Your task to perform on an android device: Open the web browser Image 0: 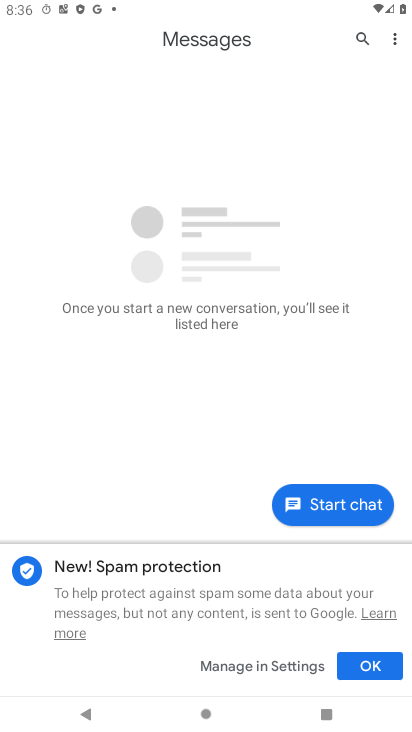
Step 0: press back button
Your task to perform on an android device: Open the web browser Image 1: 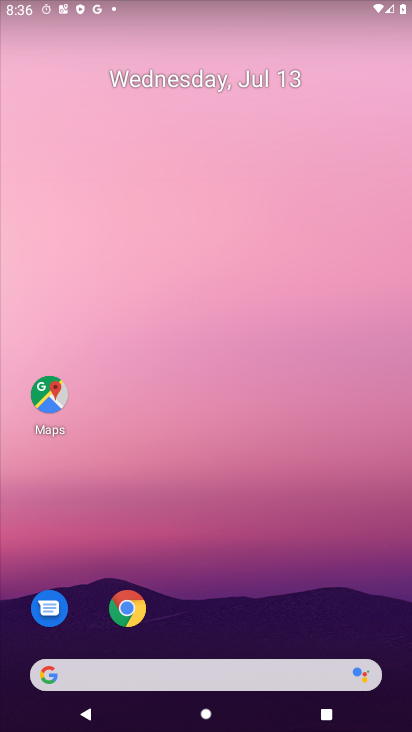
Step 1: drag from (265, 656) to (196, 255)
Your task to perform on an android device: Open the web browser Image 2: 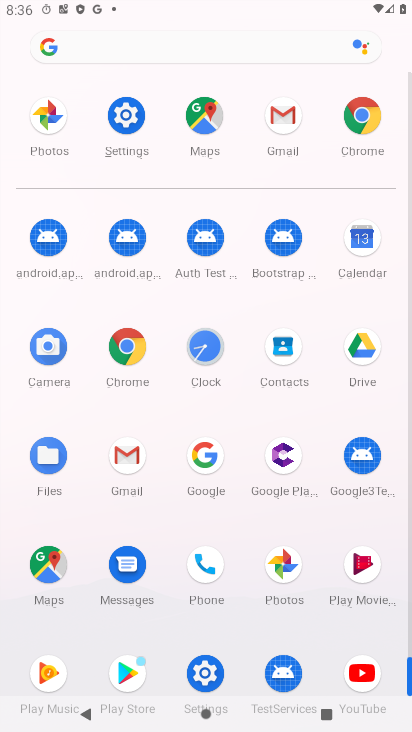
Step 2: click (343, 115)
Your task to perform on an android device: Open the web browser Image 3: 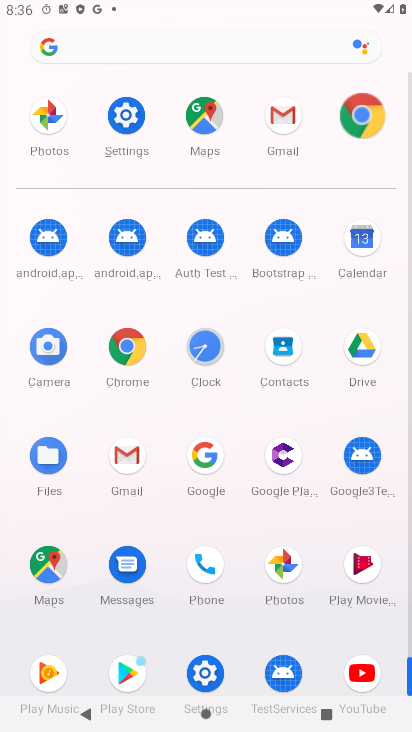
Step 3: click (349, 117)
Your task to perform on an android device: Open the web browser Image 4: 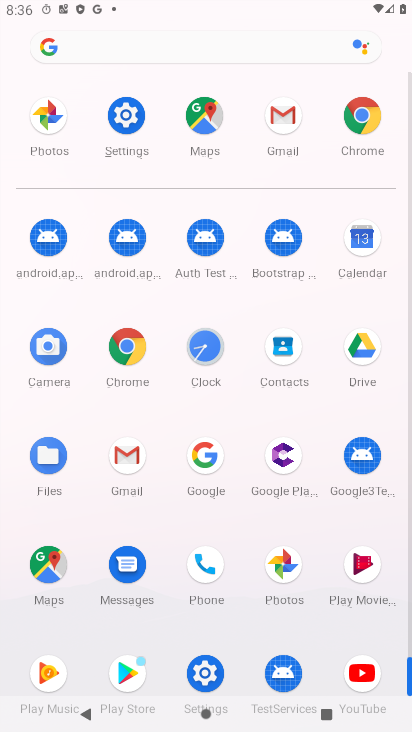
Step 4: click (350, 117)
Your task to perform on an android device: Open the web browser Image 5: 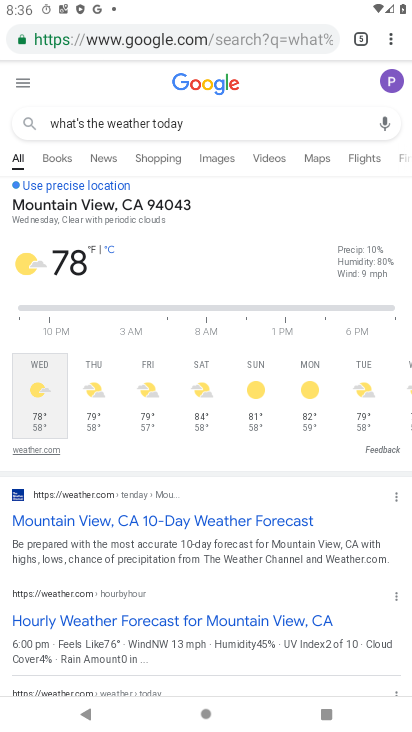
Step 5: task complete